Your task to perform on an android device: turn pop-ups off in chrome Image 0: 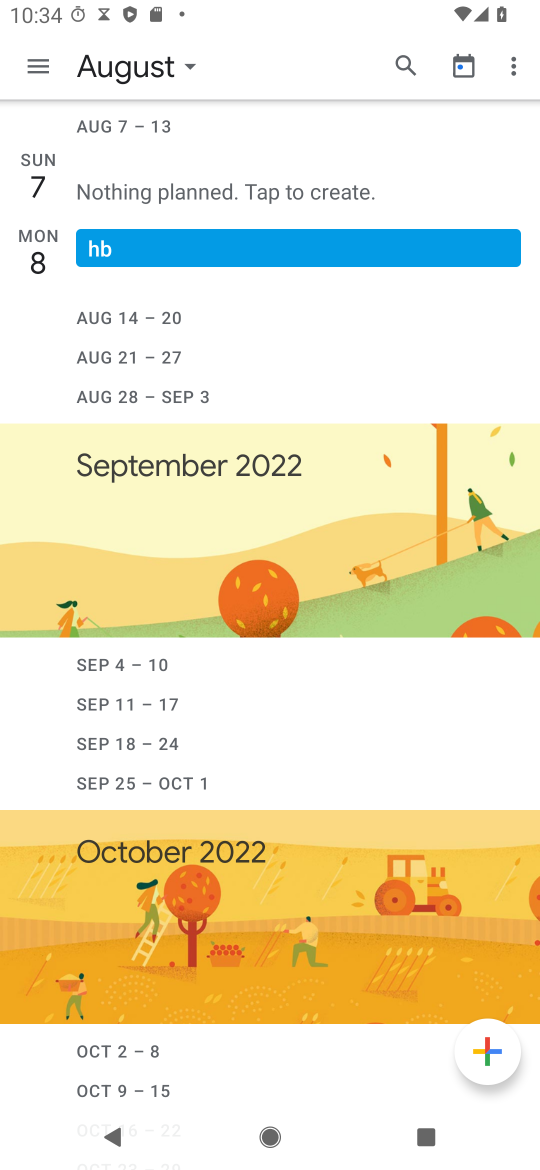
Step 0: press home button
Your task to perform on an android device: turn pop-ups off in chrome Image 1: 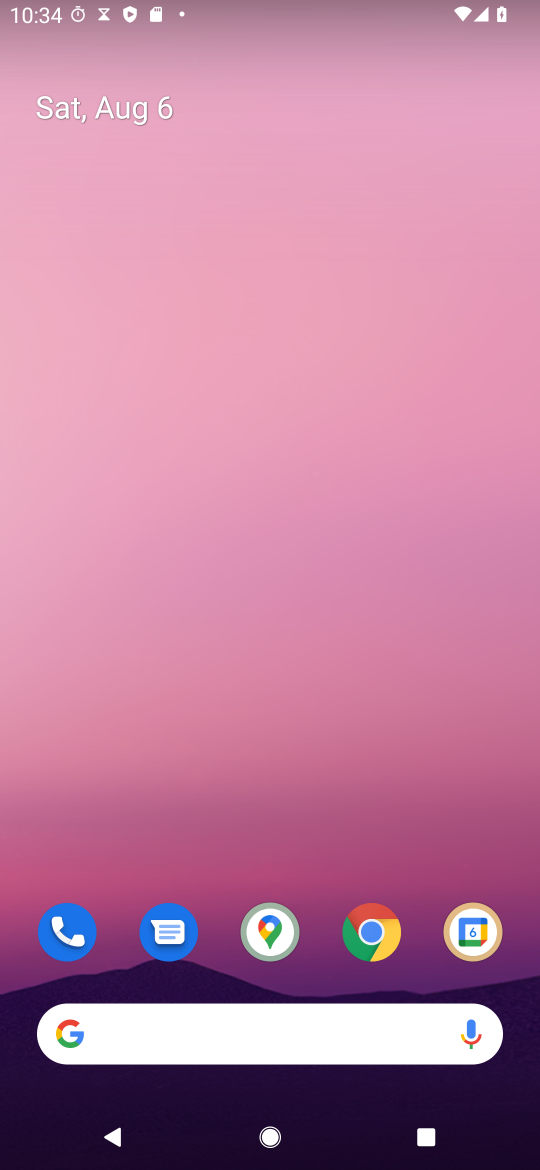
Step 1: click (370, 932)
Your task to perform on an android device: turn pop-ups off in chrome Image 2: 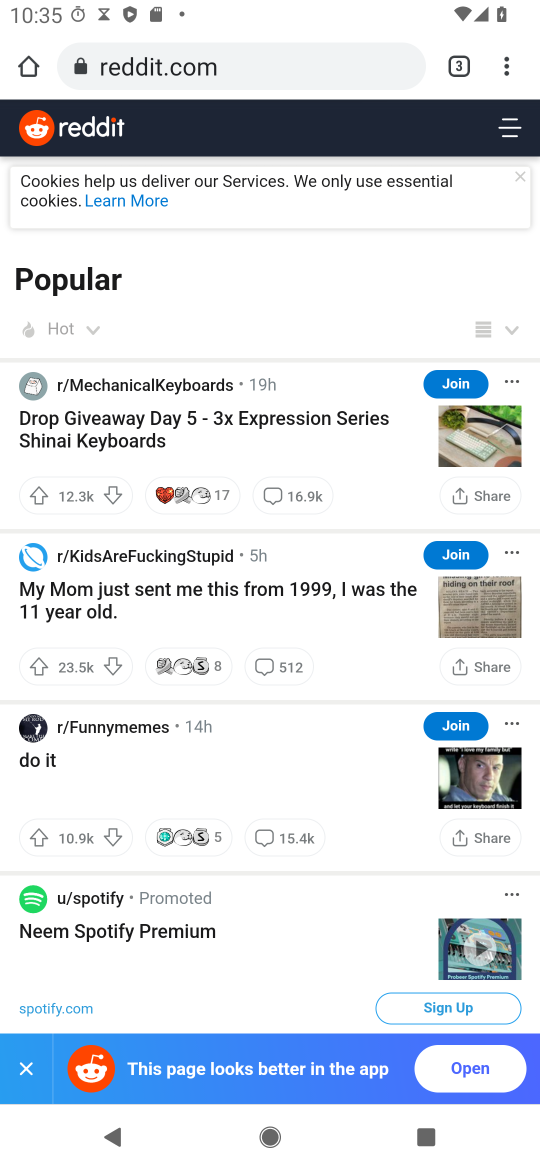
Step 2: click (514, 70)
Your task to perform on an android device: turn pop-ups off in chrome Image 3: 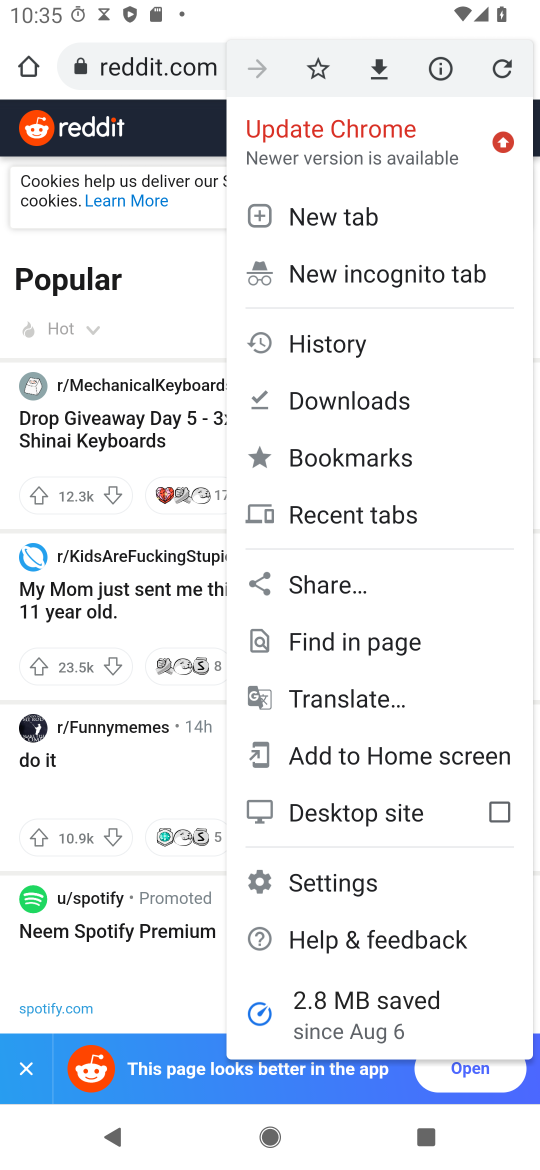
Step 3: click (349, 882)
Your task to perform on an android device: turn pop-ups off in chrome Image 4: 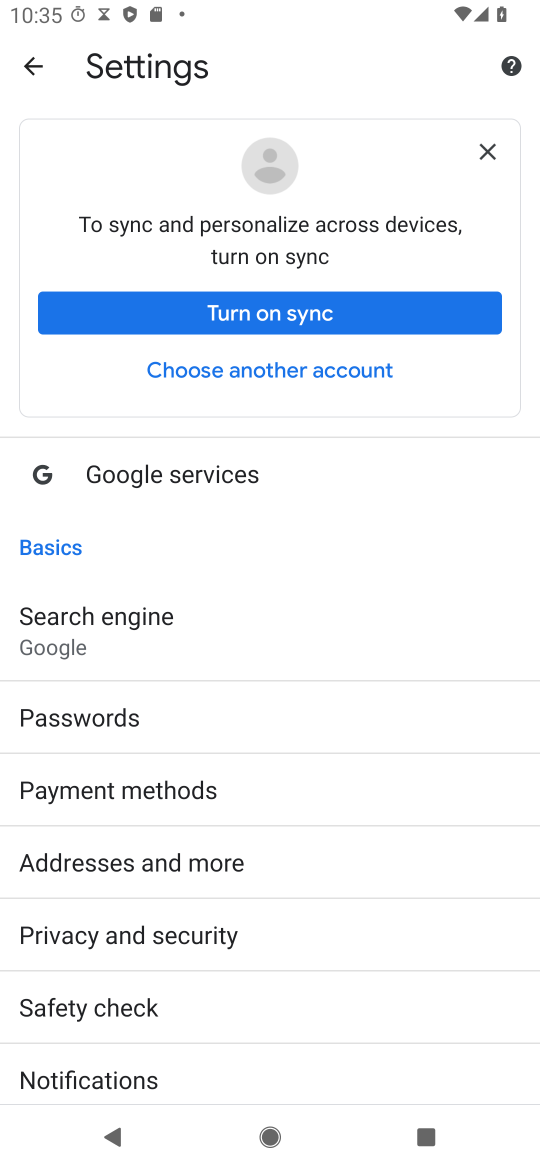
Step 4: drag from (170, 968) to (280, 744)
Your task to perform on an android device: turn pop-ups off in chrome Image 5: 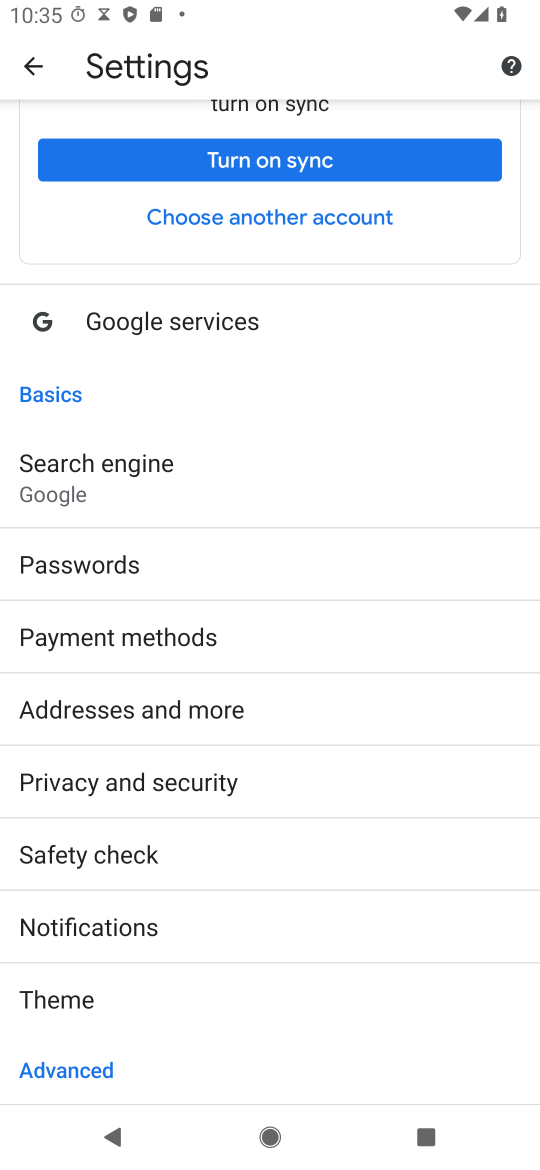
Step 5: drag from (208, 942) to (275, 740)
Your task to perform on an android device: turn pop-ups off in chrome Image 6: 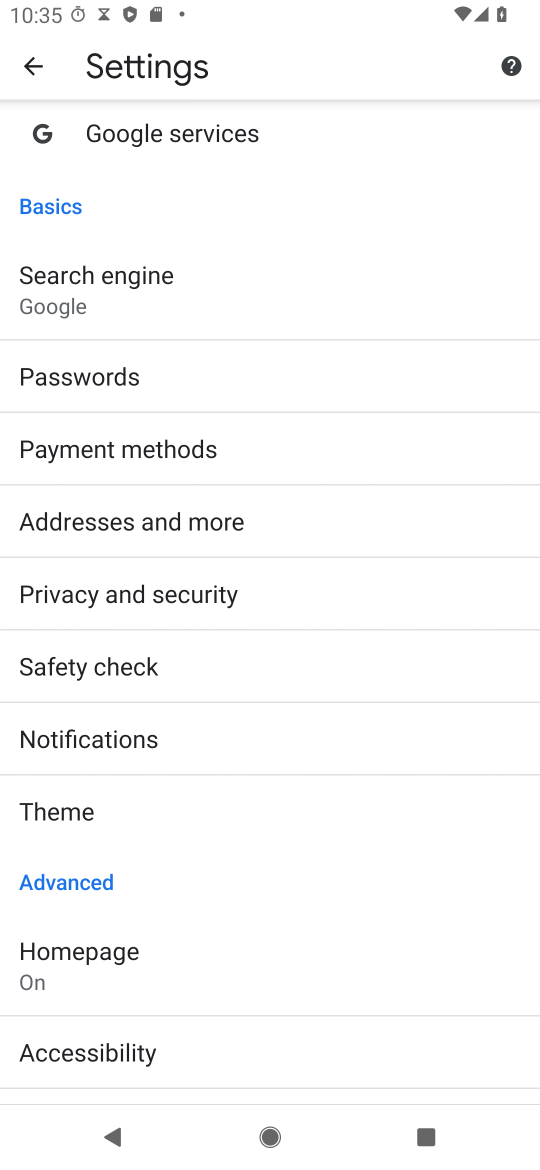
Step 6: drag from (170, 913) to (277, 730)
Your task to perform on an android device: turn pop-ups off in chrome Image 7: 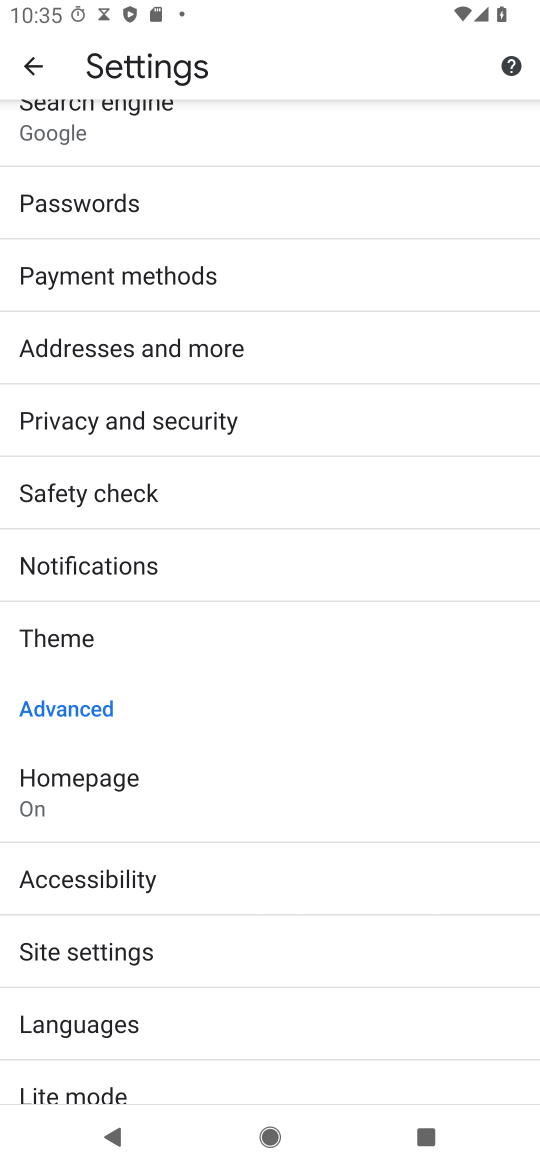
Step 7: click (117, 959)
Your task to perform on an android device: turn pop-ups off in chrome Image 8: 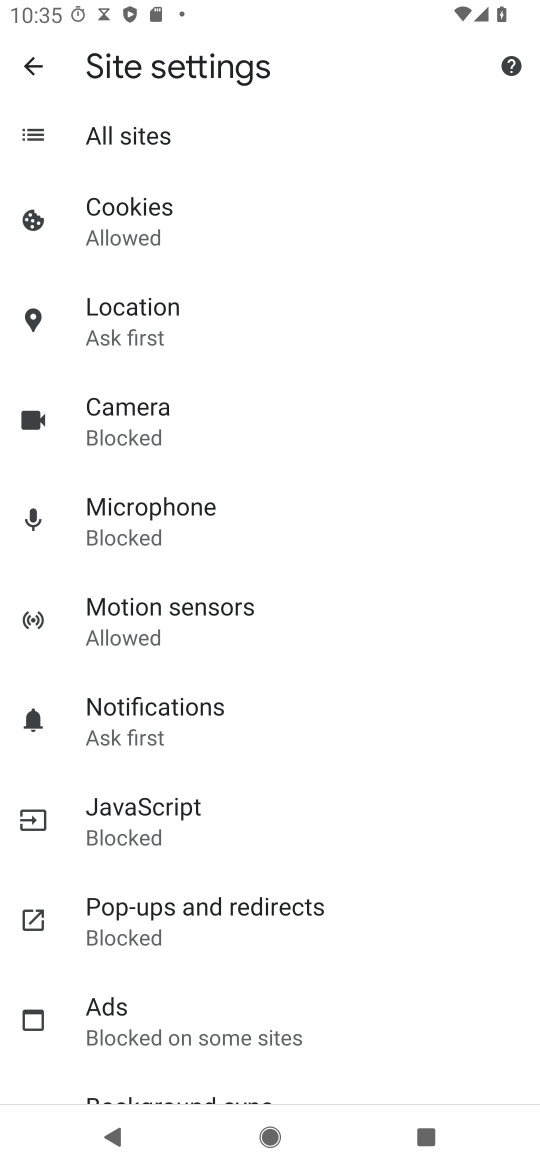
Step 8: click (162, 826)
Your task to perform on an android device: turn pop-ups off in chrome Image 9: 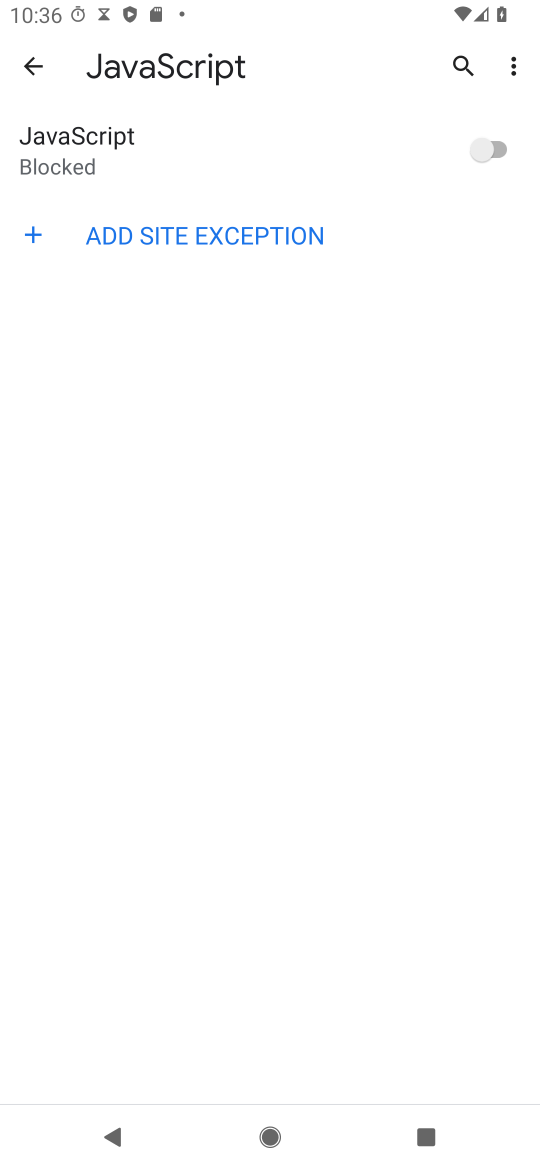
Step 9: task complete